Your task to perform on an android device: make emails show in primary in the gmail app Image 0: 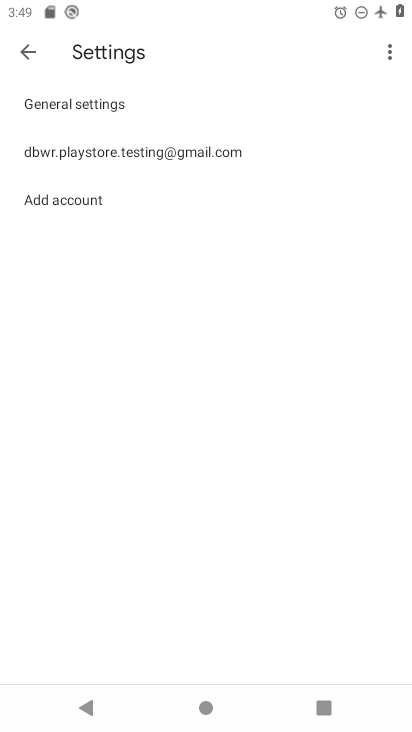
Step 0: press home button
Your task to perform on an android device: make emails show in primary in the gmail app Image 1: 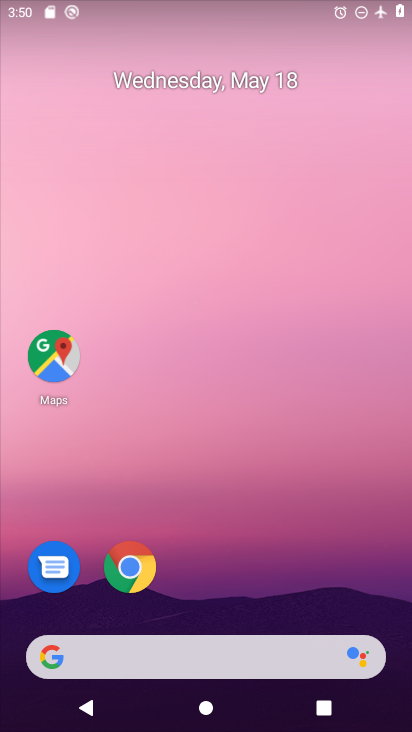
Step 1: drag from (231, 555) to (285, 172)
Your task to perform on an android device: make emails show in primary in the gmail app Image 2: 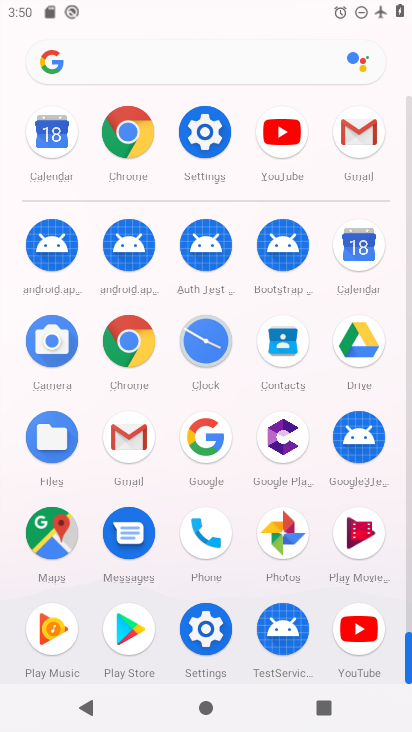
Step 2: click (119, 422)
Your task to perform on an android device: make emails show in primary in the gmail app Image 3: 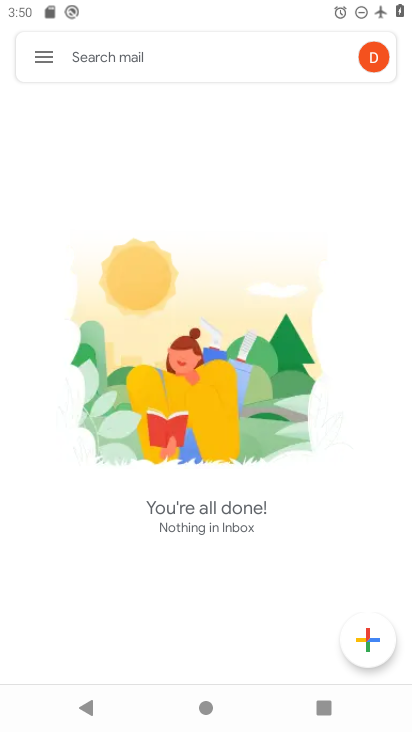
Step 3: click (41, 54)
Your task to perform on an android device: make emails show in primary in the gmail app Image 4: 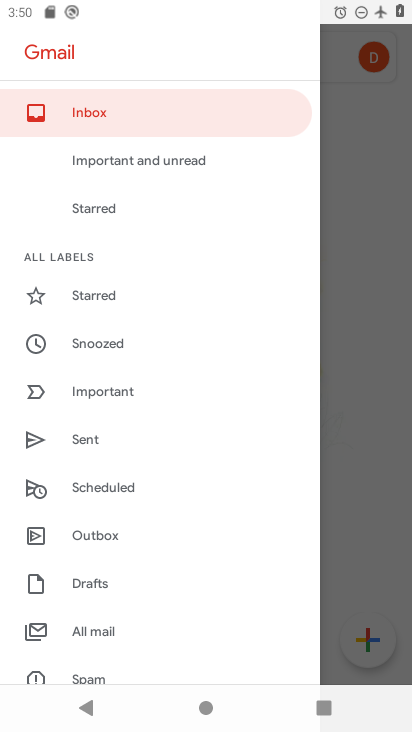
Step 4: drag from (137, 567) to (183, 169)
Your task to perform on an android device: make emails show in primary in the gmail app Image 5: 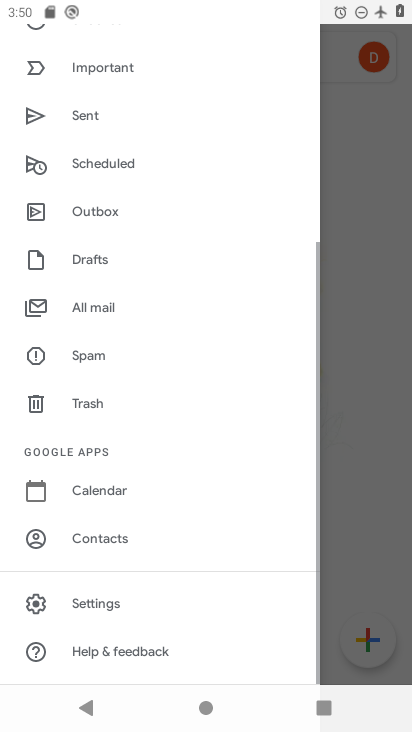
Step 5: click (127, 610)
Your task to perform on an android device: make emails show in primary in the gmail app Image 6: 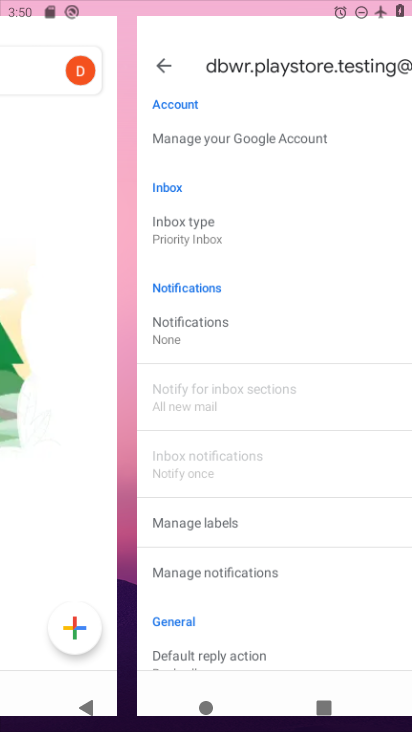
Step 6: task complete